Your task to perform on an android device: toggle data saver in the chrome app Image 0: 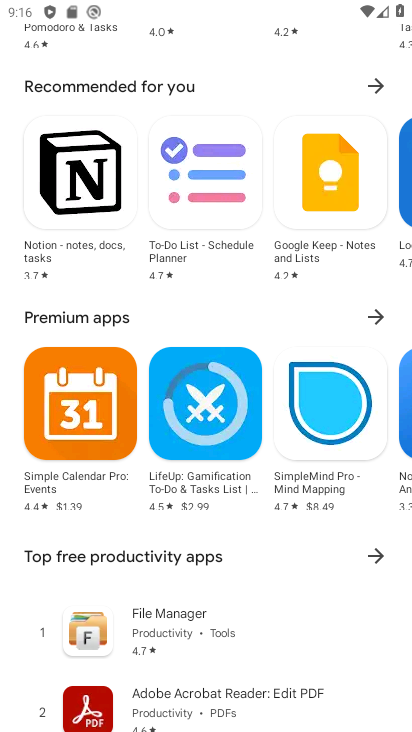
Step 0: press home button
Your task to perform on an android device: toggle data saver in the chrome app Image 1: 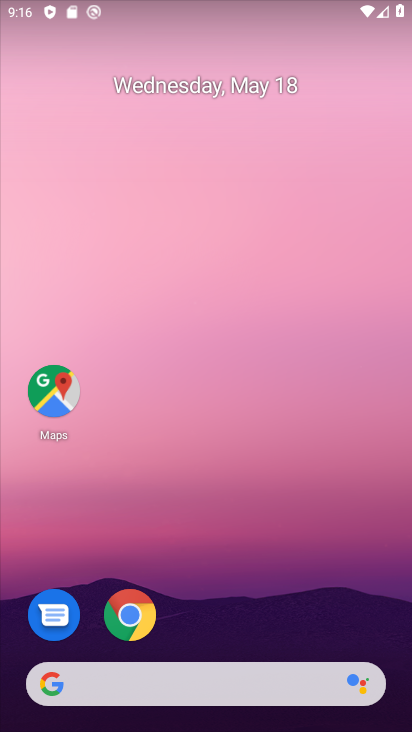
Step 1: click (133, 620)
Your task to perform on an android device: toggle data saver in the chrome app Image 2: 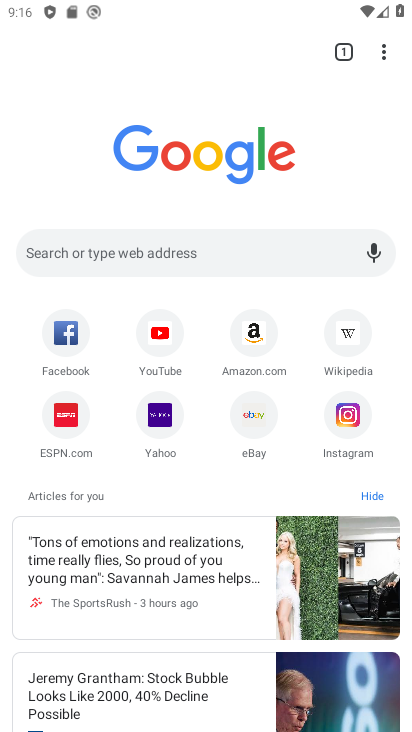
Step 2: click (371, 61)
Your task to perform on an android device: toggle data saver in the chrome app Image 3: 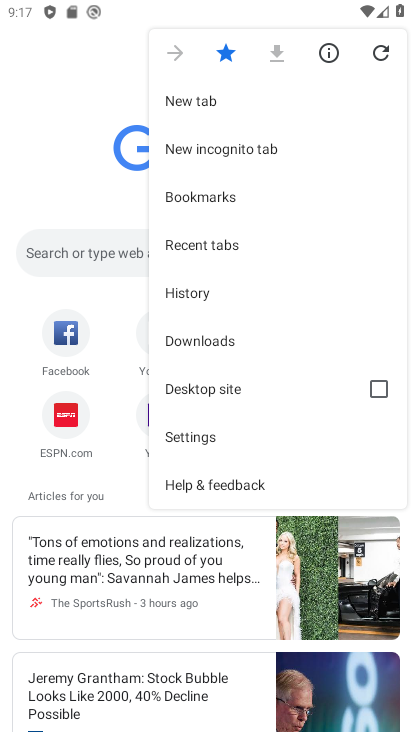
Step 3: click (216, 433)
Your task to perform on an android device: toggle data saver in the chrome app Image 4: 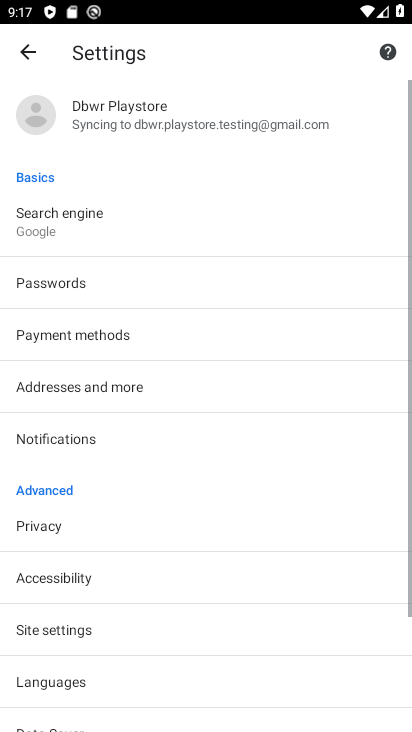
Step 4: drag from (181, 571) to (183, 449)
Your task to perform on an android device: toggle data saver in the chrome app Image 5: 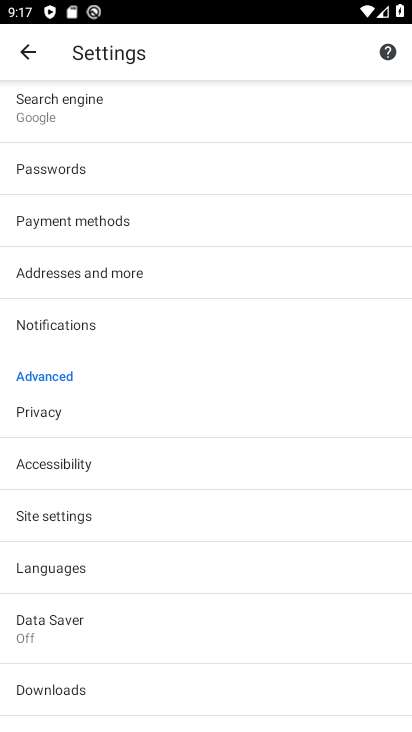
Step 5: click (80, 626)
Your task to perform on an android device: toggle data saver in the chrome app Image 6: 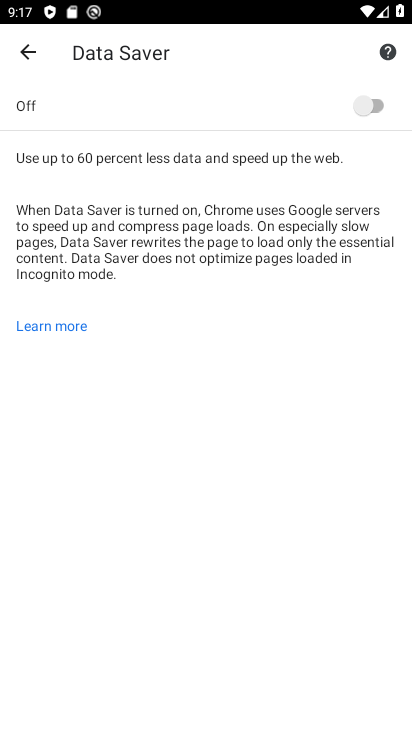
Step 6: click (378, 97)
Your task to perform on an android device: toggle data saver in the chrome app Image 7: 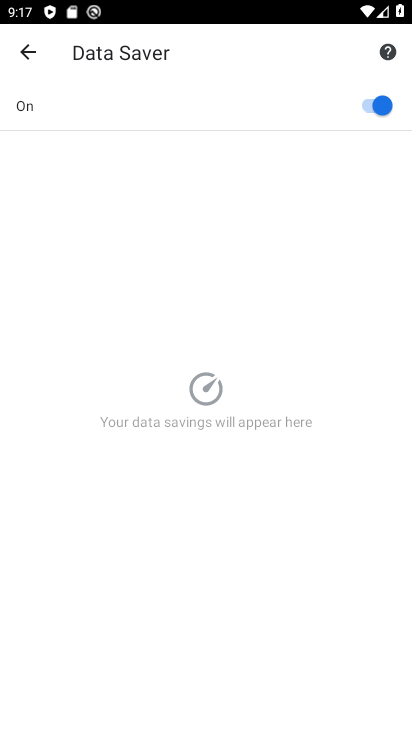
Step 7: task complete